Your task to perform on an android device: Go to Google Image 0: 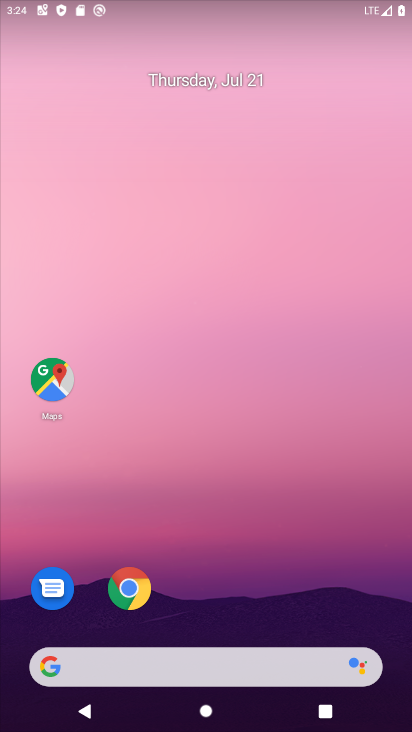
Step 0: drag from (280, 600) to (313, 77)
Your task to perform on an android device: Go to Google Image 1: 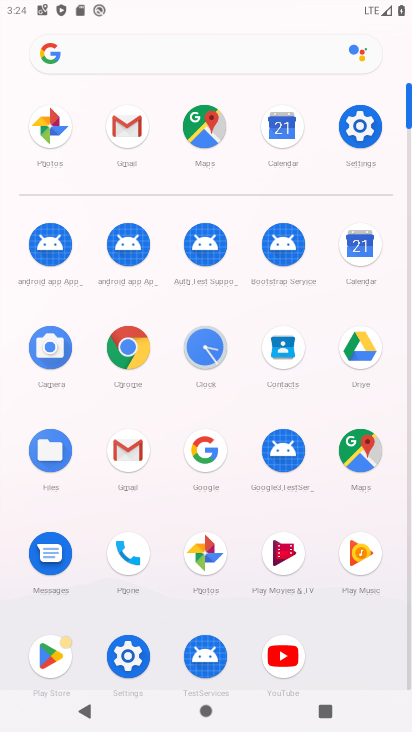
Step 1: click (210, 436)
Your task to perform on an android device: Go to Google Image 2: 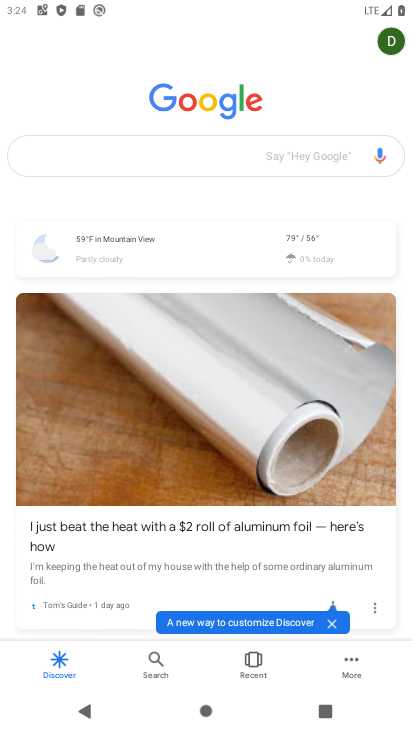
Step 2: task complete